Your task to perform on an android device: Open maps Image 0: 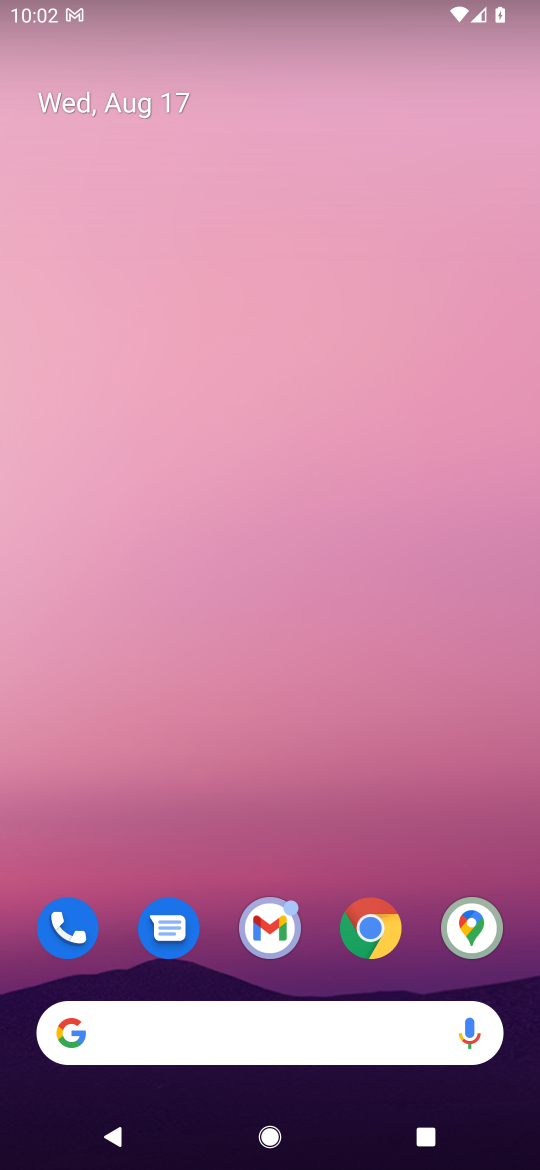
Step 0: click (474, 912)
Your task to perform on an android device: Open maps Image 1: 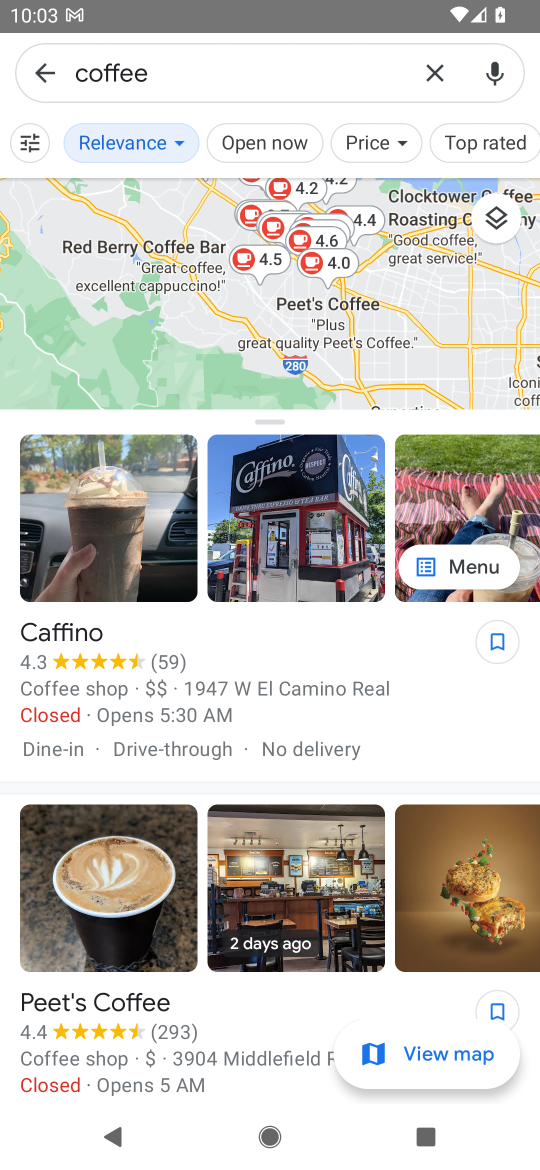
Step 1: click (44, 81)
Your task to perform on an android device: Open maps Image 2: 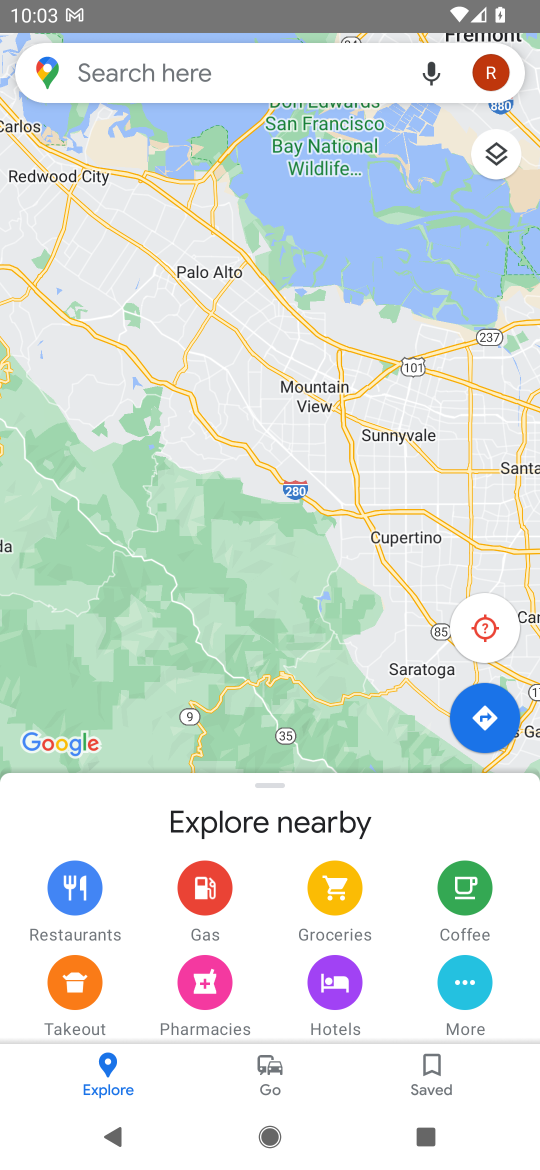
Step 2: task complete